Your task to perform on an android device: see creations saved in the google photos Image 0: 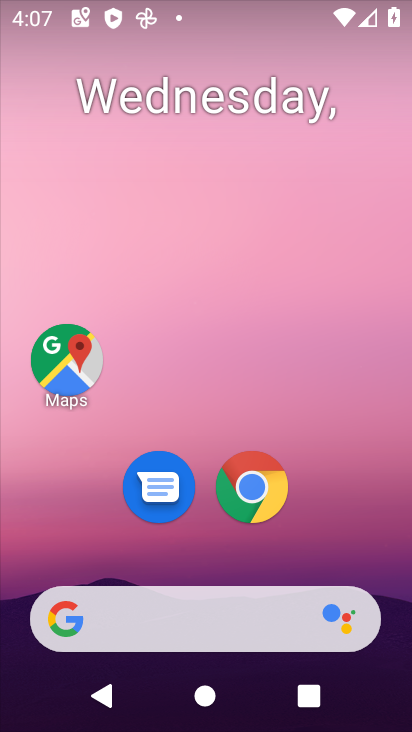
Step 0: drag from (395, 560) to (385, 225)
Your task to perform on an android device: see creations saved in the google photos Image 1: 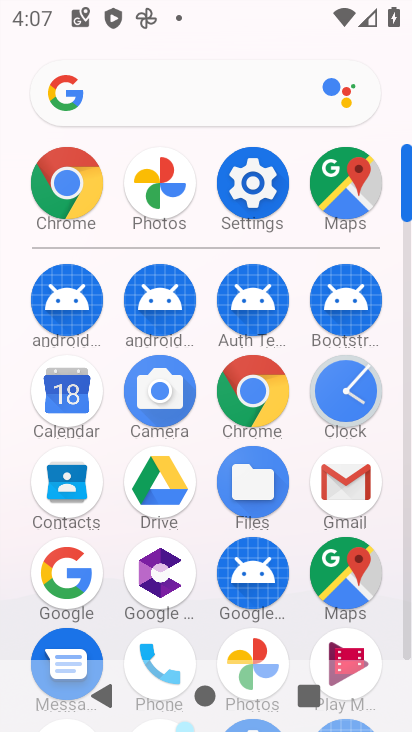
Step 1: click (170, 216)
Your task to perform on an android device: see creations saved in the google photos Image 2: 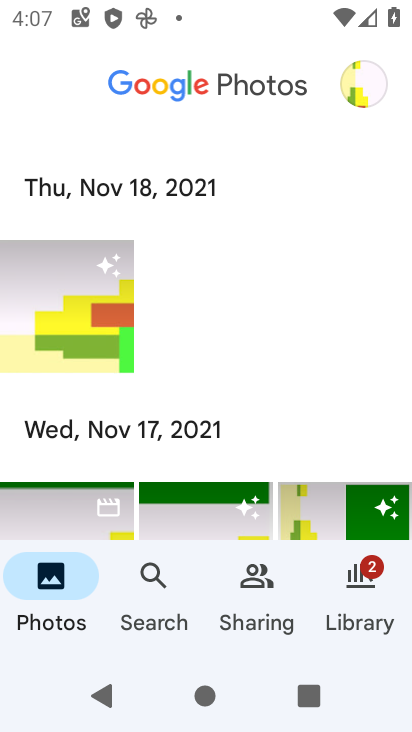
Step 2: click (166, 603)
Your task to perform on an android device: see creations saved in the google photos Image 3: 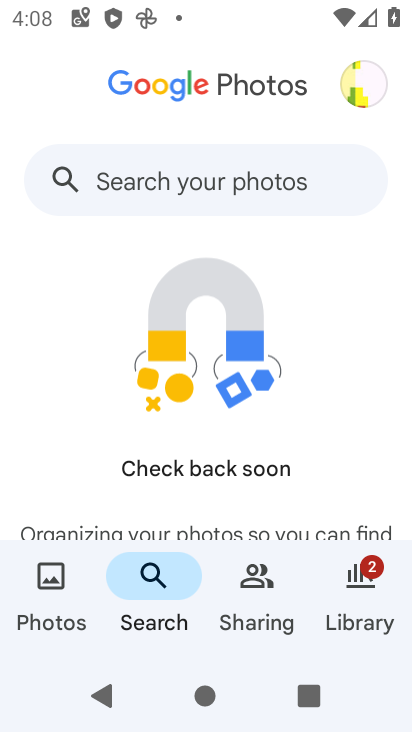
Step 3: drag from (303, 473) to (307, 339)
Your task to perform on an android device: see creations saved in the google photos Image 4: 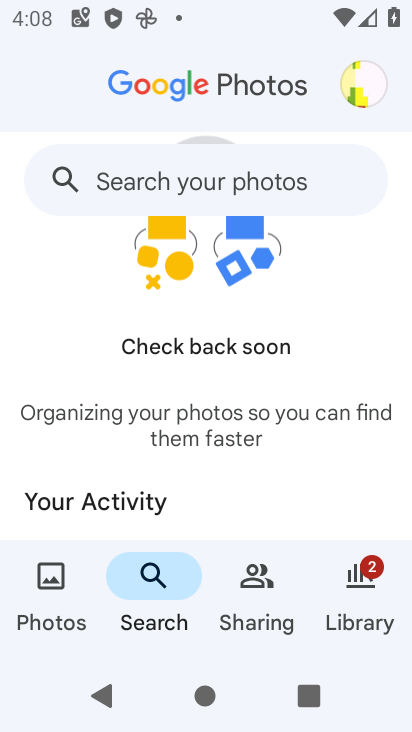
Step 4: drag from (294, 493) to (297, 353)
Your task to perform on an android device: see creations saved in the google photos Image 5: 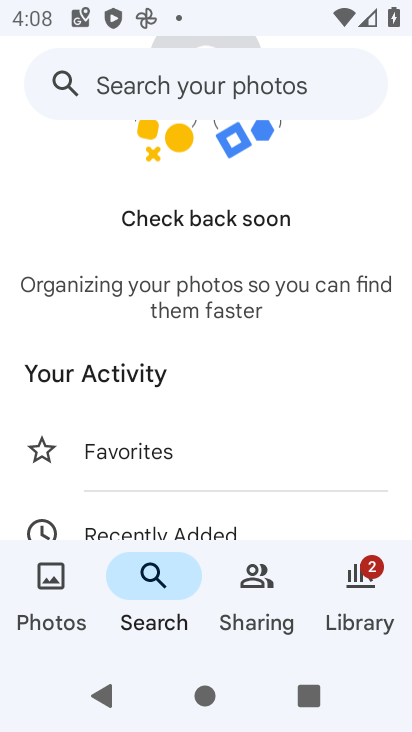
Step 5: drag from (272, 488) to (280, 353)
Your task to perform on an android device: see creations saved in the google photos Image 6: 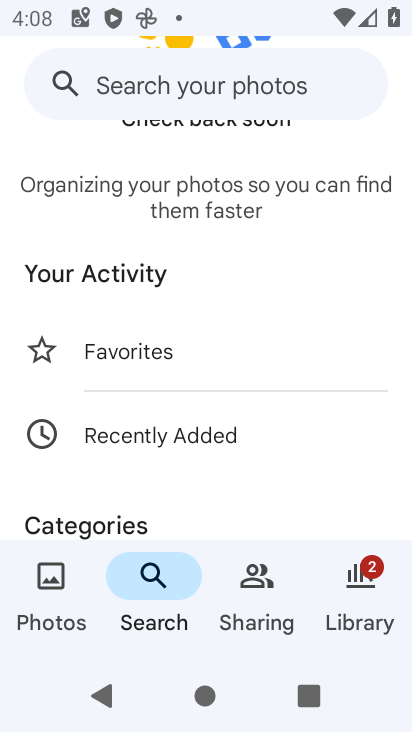
Step 6: drag from (261, 484) to (265, 387)
Your task to perform on an android device: see creations saved in the google photos Image 7: 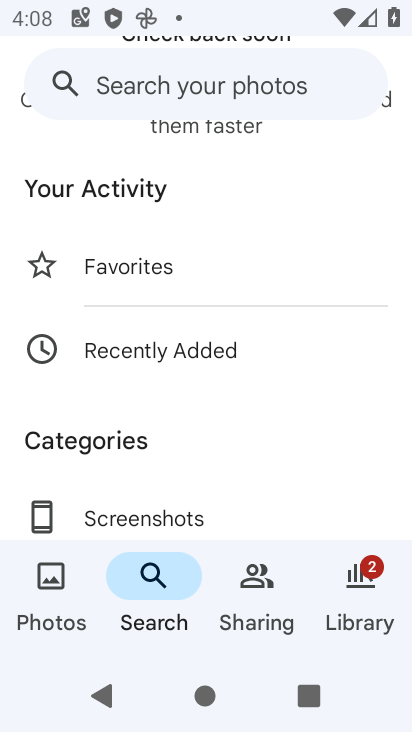
Step 7: drag from (254, 507) to (270, 414)
Your task to perform on an android device: see creations saved in the google photos Image 8: 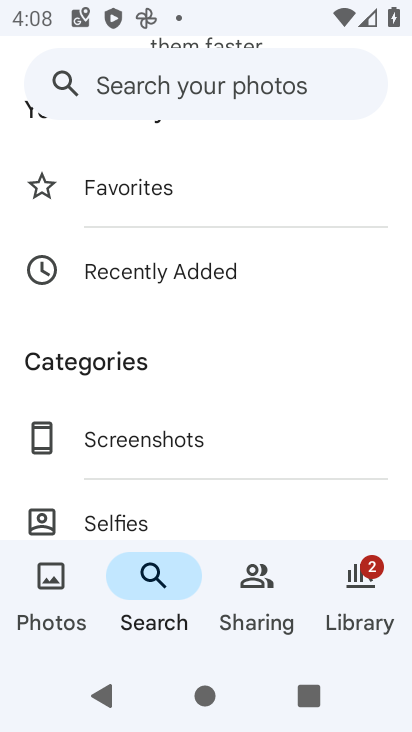
Step 8: drag from (262, 506) to (267, 405)
Your task to perform on an android device: see creations saved in the google photos Image 9: 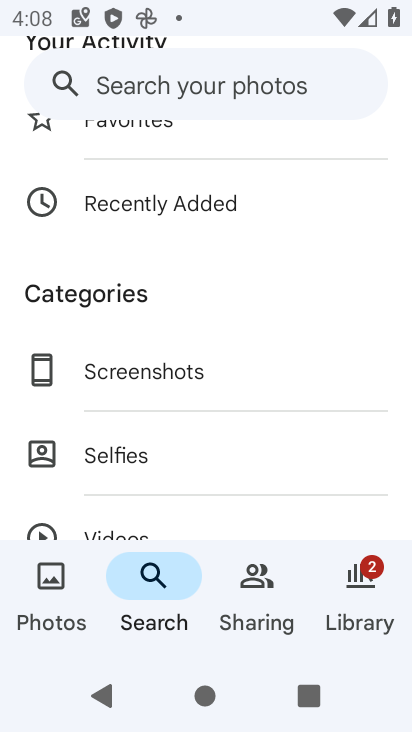
Step 9: drag from (269, 491) to (292, 344)
Your task to perform on an android device: see creations saved in the google photos Image 10: 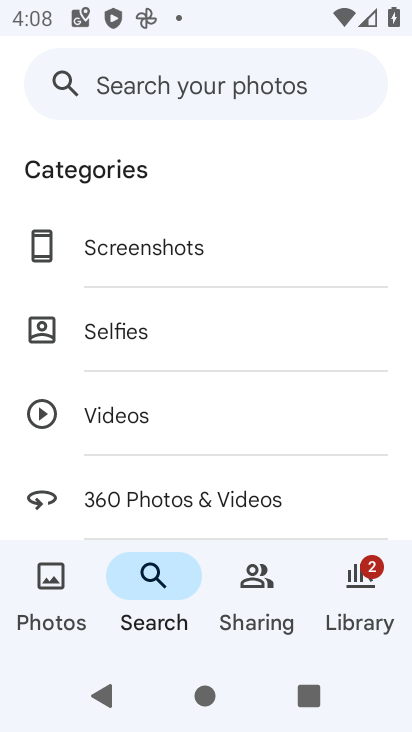
Step 10: drag from (292, 428) to (303, 350)
Your task to perform on an android device: see creations saved in the google photos Image 11: 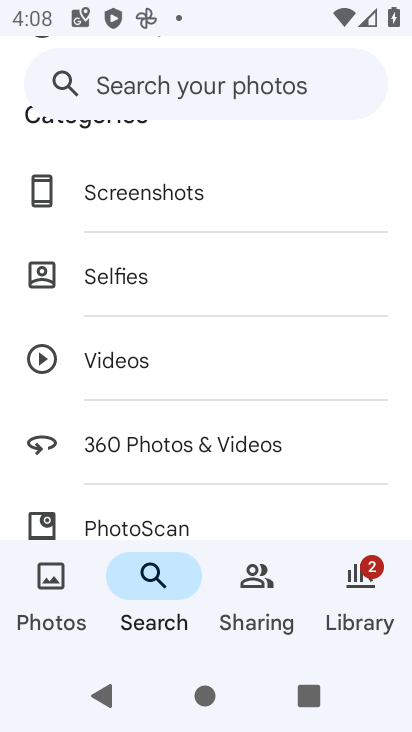
Step 11: drag from (292, 494) to (297, 369)
Your task to perform on an android device: see creations saved in the google photos Image 12: 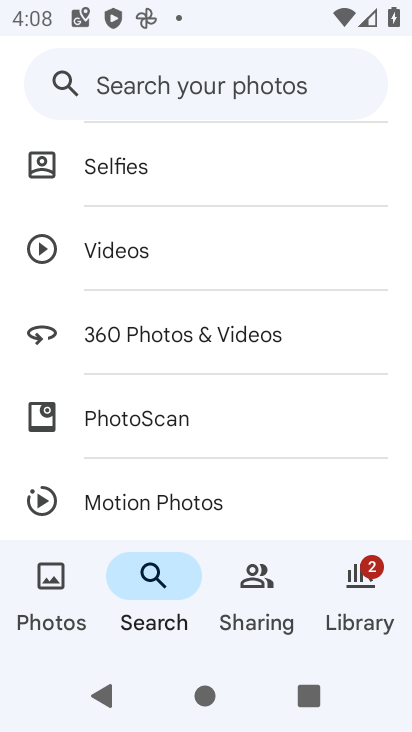
Step 12: drag from (285, 455) to (291, 375)
Your task to perform on an android device: see creations saved in the google photos Image 13: 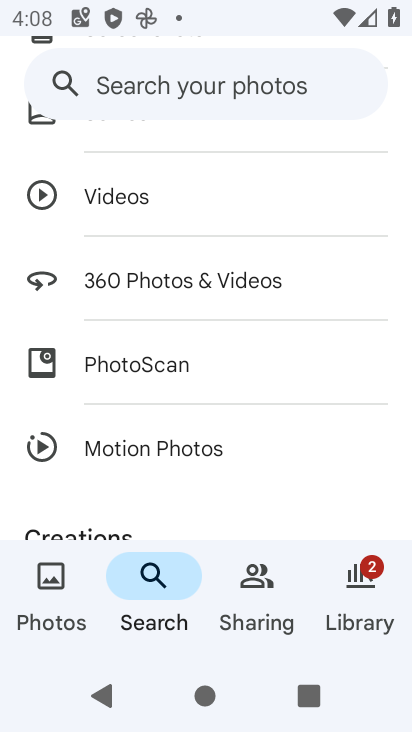
Step 13: drag from (279, 477) to (284, 366)
Your task to perform on an android device: see creations saved in the google photos Image 14: 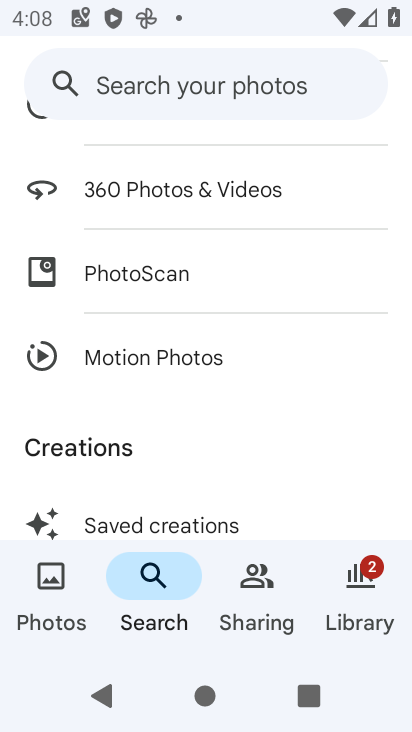
Step 14: drag from (269, 470) to (276, 338)
Your task to perform on an android device: see creations saved in the google photos Image 15: 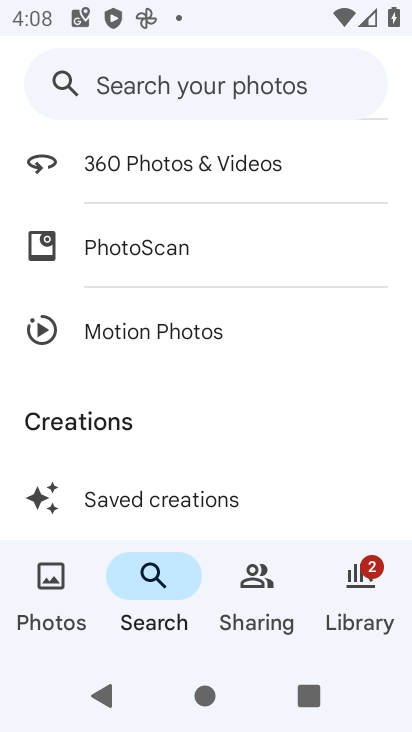
Step 15: click (205, 508)
Your task to perform on an android device: see creations saved in the google photos Image 16: 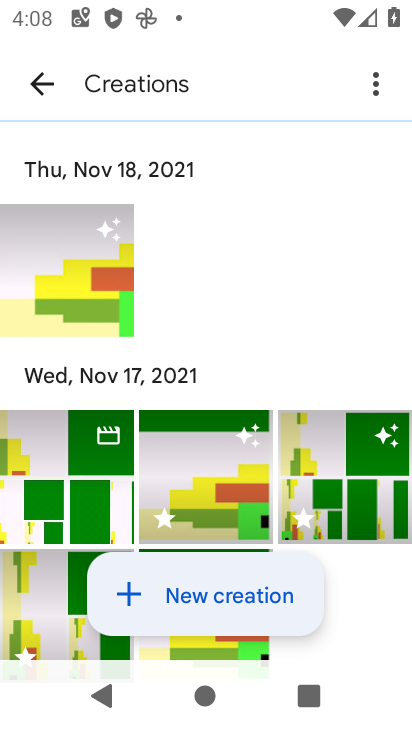
Step 16: task complete